Your task to perform on an android device: Toggle the flashlight Image 0: 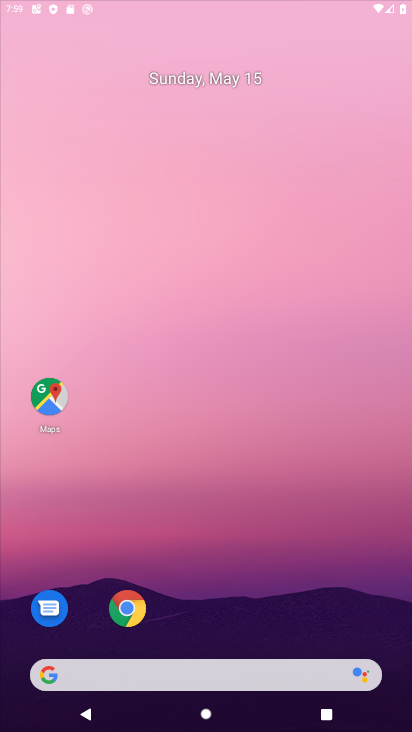
Step 0: drag from (302, 608) to (198, 259)
Your task to perform on an android device: Toggle the flashlight Image 1: 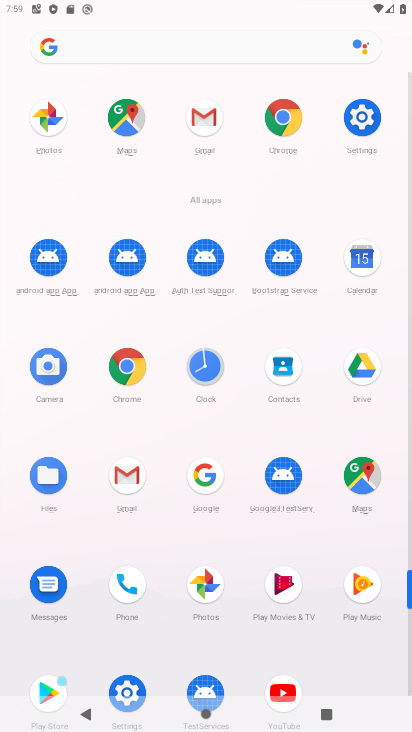
Step 1: click (366, 135)
Your task to perform on an android device: Toggle the flashlight Image 2: 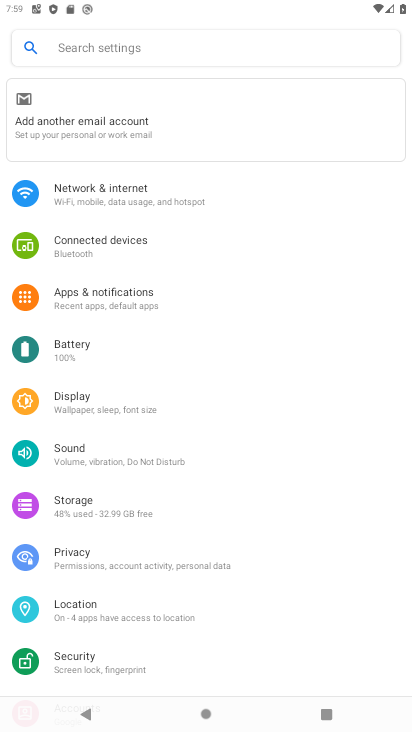
Step 2: drag from (212, 554) to (147, 218)
Your task to perform on an android device: Toggle the flashlight Image 3: 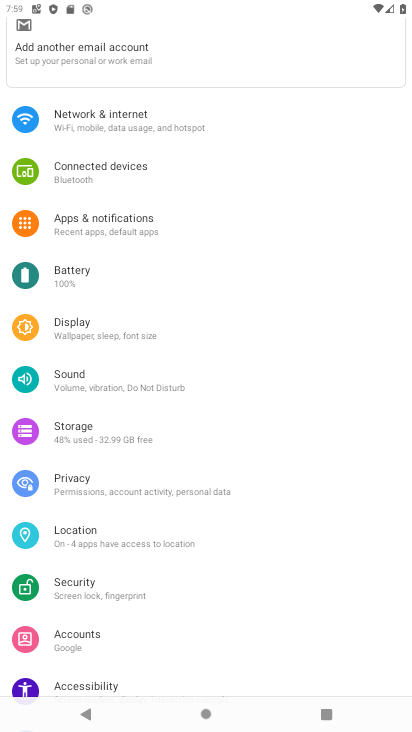
Step 3: drag from (143, 440) to (157, 223)
Your task to perform on an android device: Toggle the flashlight Image 4: 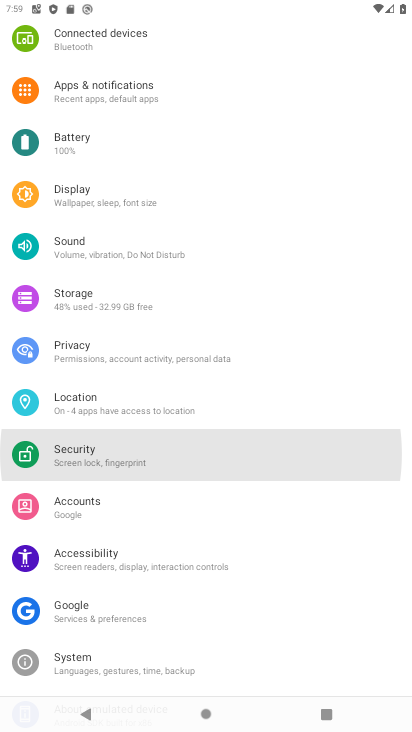
Step 4: drag from (170, 451) to (169, 214)
Your task to perform on an android device: Toggle the flashlight Image 5: 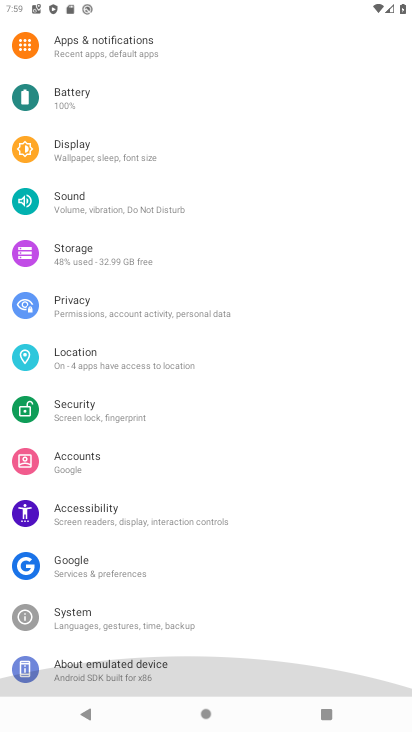
Step 5: drag from (178, 488) to (171, 160)
Your task to perform on an android device: Toggle the flashlight Image 6: 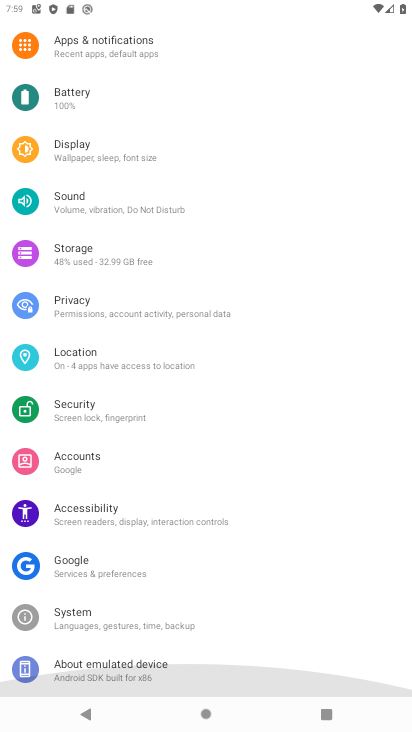
Step 6: drag from (179, 469) to (174, 156)
Your task to perform on an android device: Toggle the flashlight Image 7: 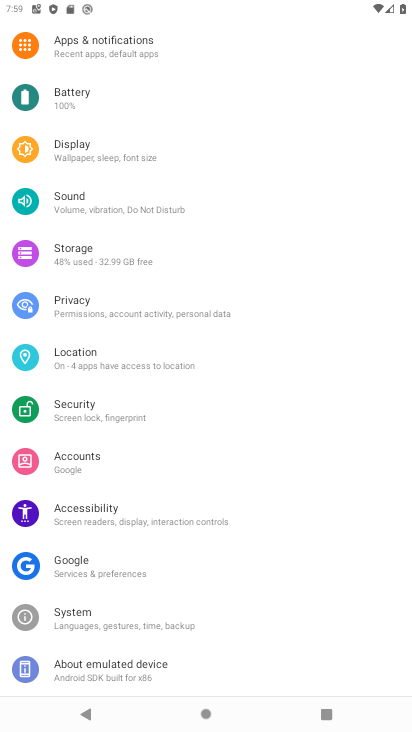
Step 7: press back button
Your task to perform on an android device: Toggle the flashlight Image 8: 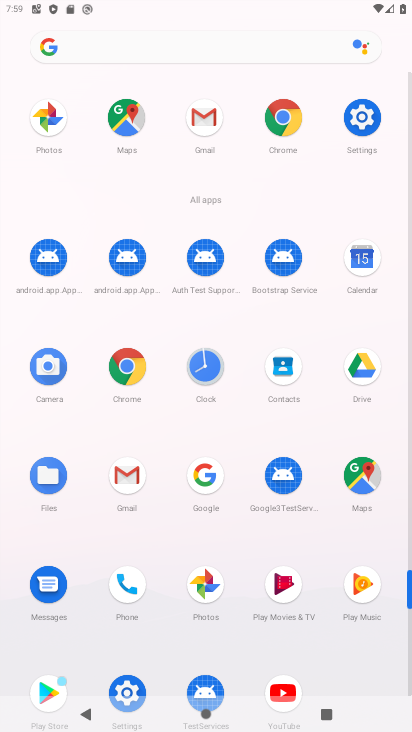
Step 8: drag from (214, 463) to (210, 356)
Your task to perform on an android device: Toggle the flashlight Image 9: 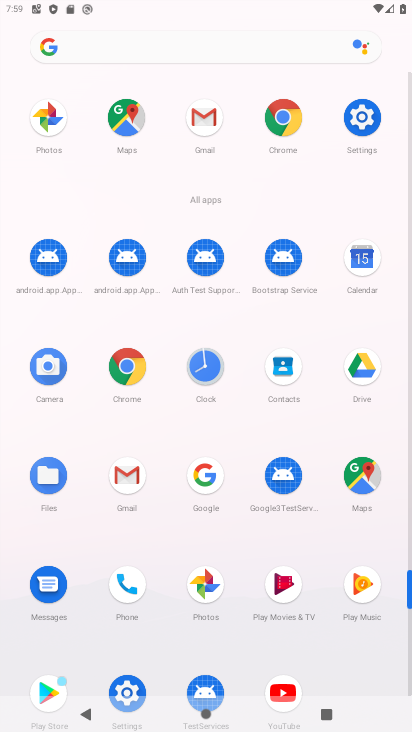
Step 9: drag from (221, 365) to (221, 220)
Your task to perform on an android device: Toggle the flashlight Image 10: 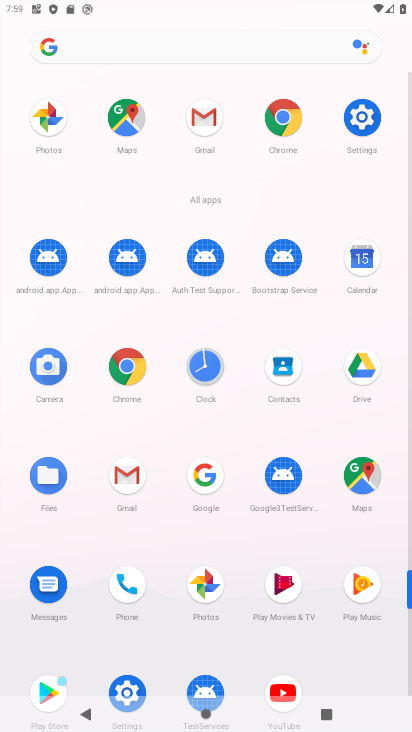
Step 10: drag from (233, 500) to (233, 370)
Your task to perform on an android device: Toggle the flashlight Image 11: 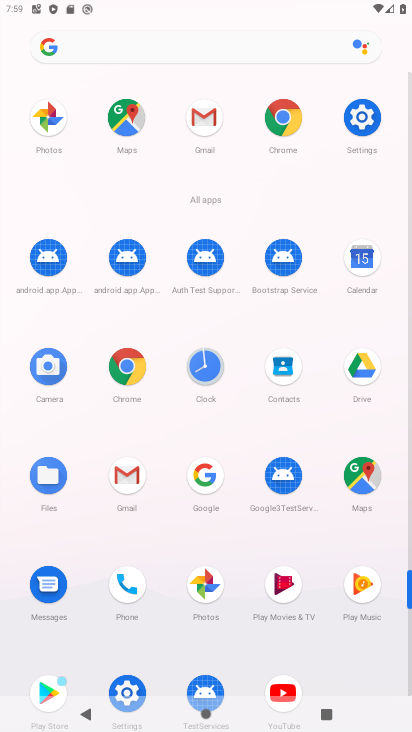
Step 11: drag from (246, 526) to (271, 274)
Your task to perform on an android device: Toggle the flashlight Image 12: 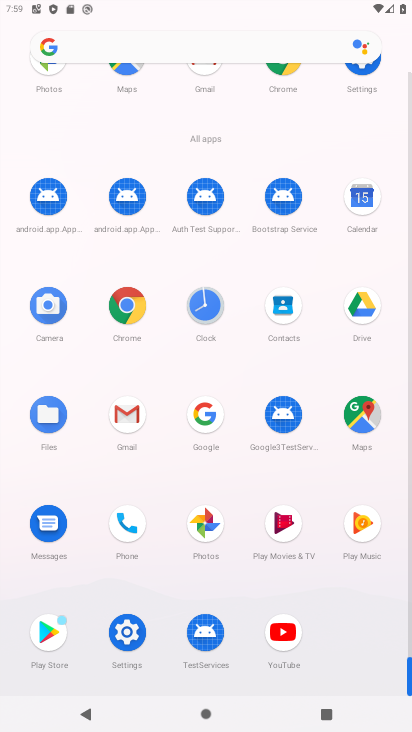
Step 12: drag from (183, 533) to (183, 289)
Your task to perform on an android device: Toggle the flashlight Image 13: 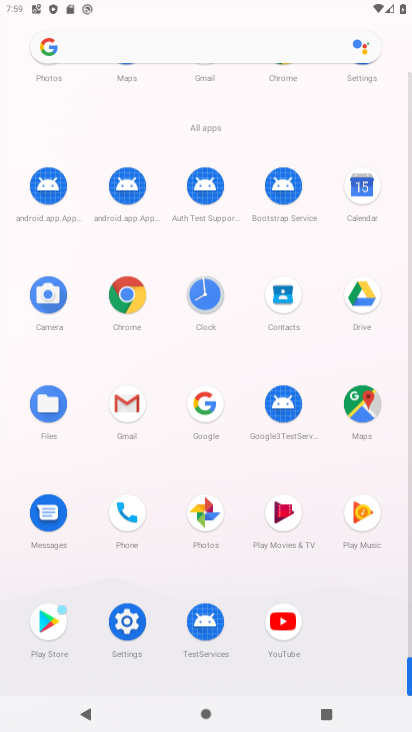
Step 13: drag from (213, 539) to (213, 352)
Your task to perform on an android device: Toggle the flashlight Image 14: 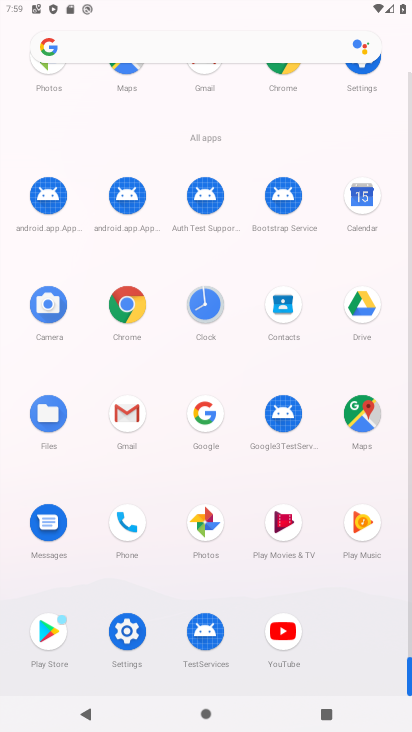
Step 14: drag from (255, 559) to (262, 347)
Your task to perform on an android device: Toggle the flashlight Image 15: 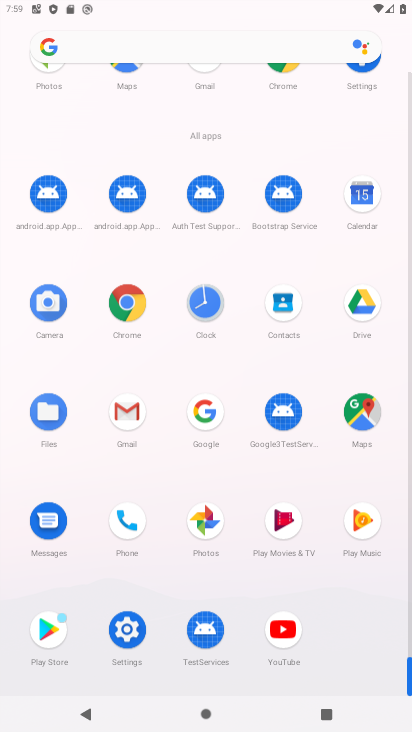
Step 15: drag from (285, 571) to (290, 335)
Your task to perform on an android device: Toggle the flashlight Image 16: 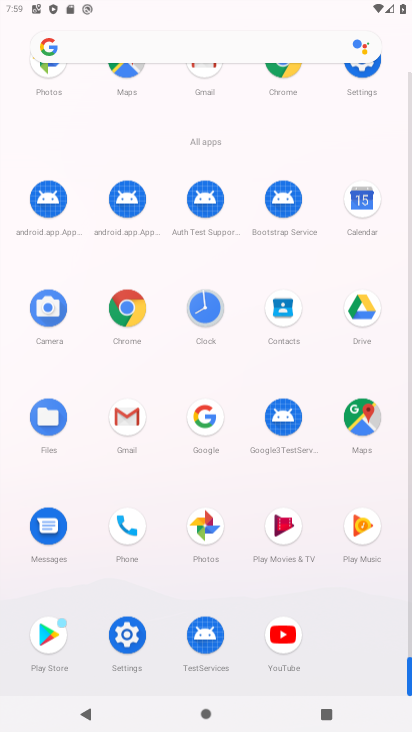
Step 16: drag from (276, 566) to (231, 334)
Your task to perform on an android device: Toggle the flashlight Image 17: 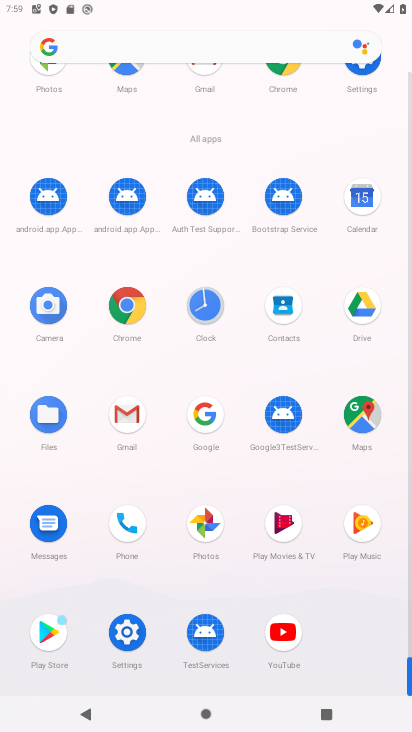
Step 17: click (246, 385)
Your task to perform on an android device: Toggle the flashlight Image 18: 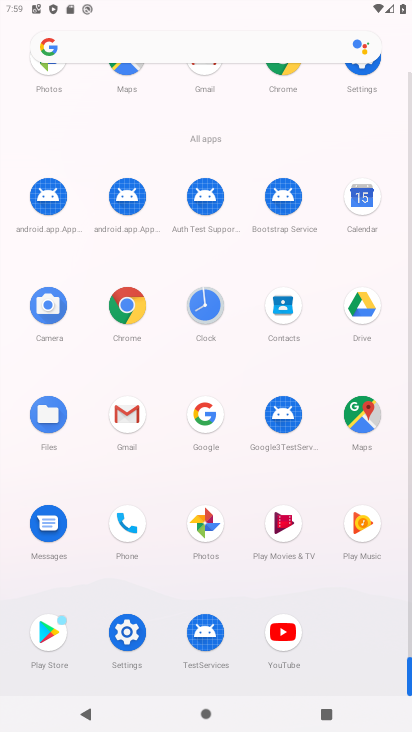
Step 18: drag from (115, 469) to (115, 434)
Your task to perform on an android device: Toggle the flashlight Image 19: 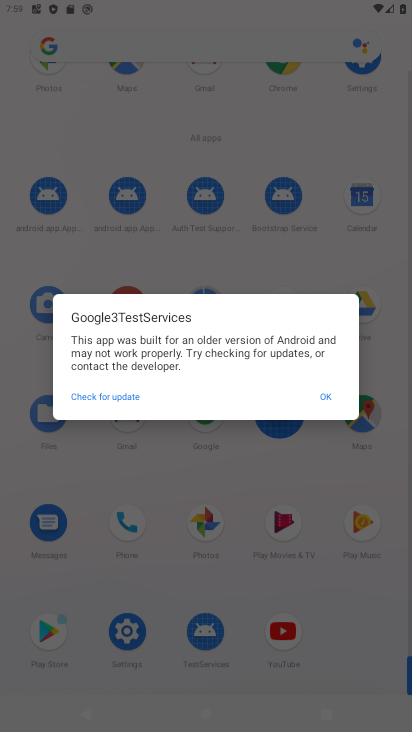
Step 19: drag from (270, 539) to (225, 353)
Your task to perform on an android device: Toggle the flashlight Image 20: 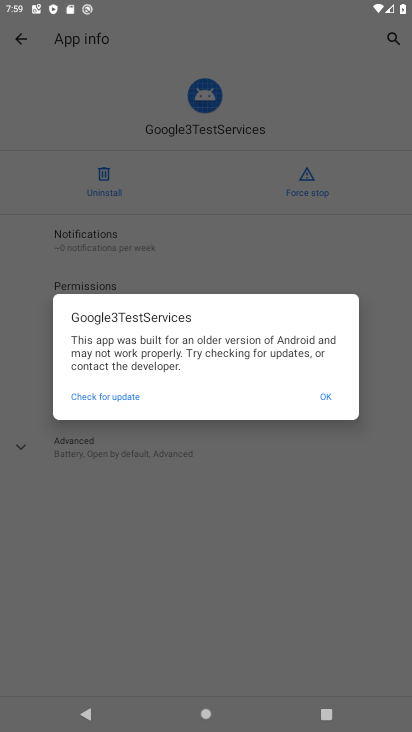
Step 20: click (332, 394)
Your task to perform on an android device: Toggle the flashlight Image 21: 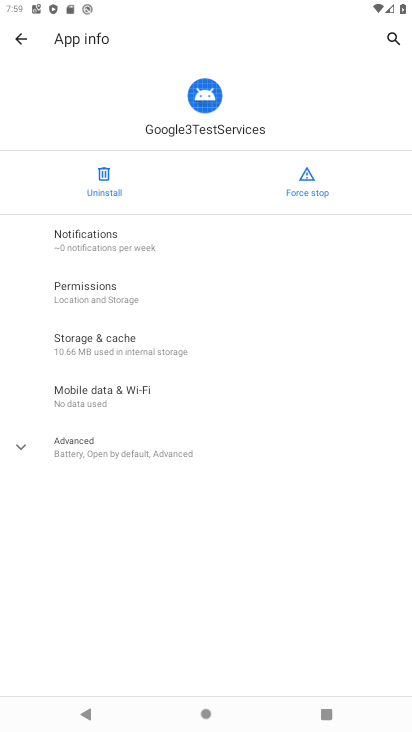
Step 21: task complete